Your task to perform on an android device: toggle priority inbox in the gmail app Image 0: 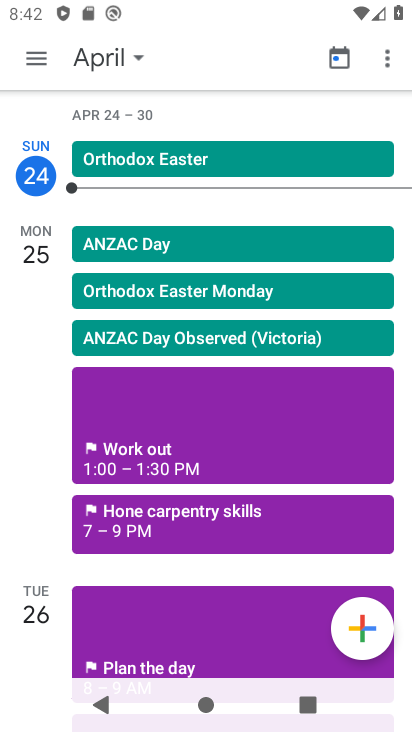
Step 0: drag from (274, 414) to (285, 264)
Your task to perform on an android device: toggle priority inbox in the gmail app Image 1: 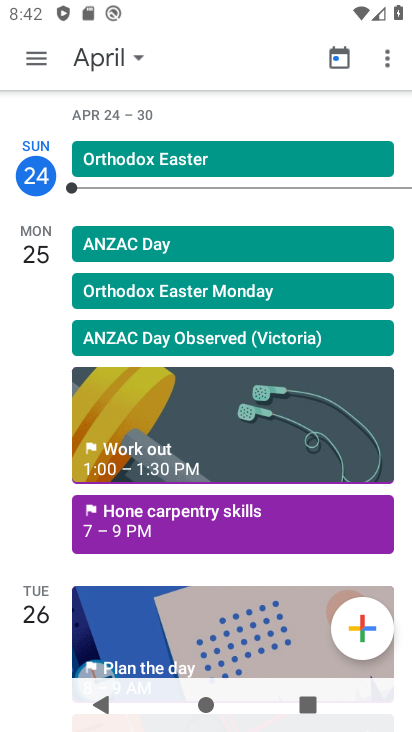
Step 1: press home button
Your task to perform on an android device: toggle priority inbox in the gmail app Image 2: 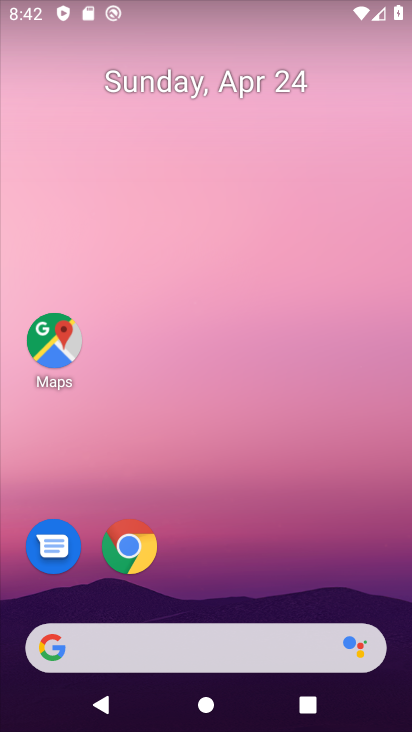
Step 2: drag from (256, 567) to (270, 244)
Your task to perform on an android device: toggle priority inbox in the gmail app Image 3: 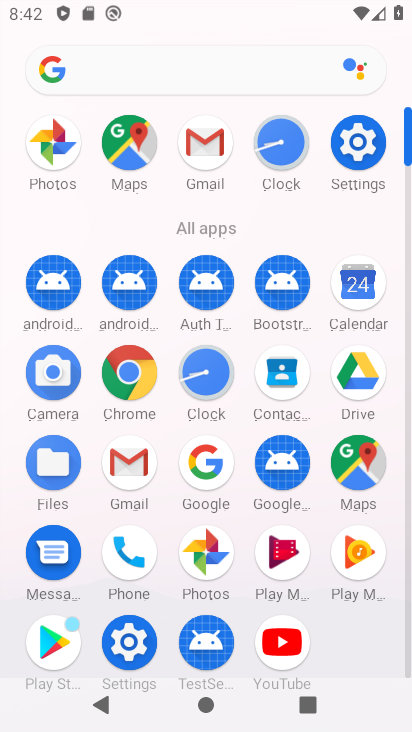
Step 3: click (126, 466)
Your task to perform on an android device: toggle priority inbox in the gmail app Image 4: 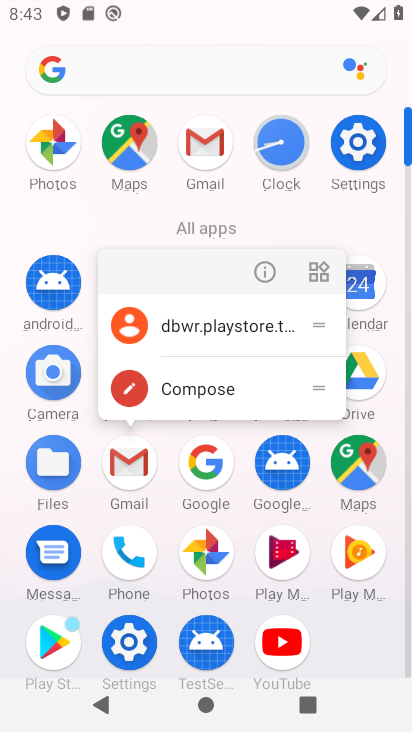
Step 4: click (125, 466)
Your task to perform on an android device: toggle priority inbox in the gmail app Image 5: 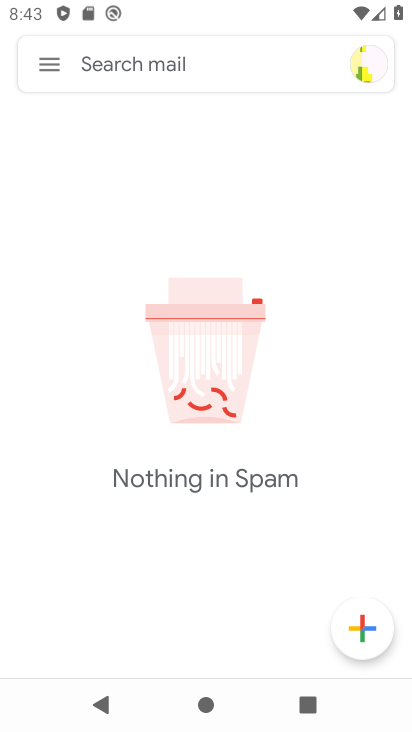
Step 5: click (41, 56)
Your task to perform on an android device: toggle priority inbox in the gmail app Image 6: 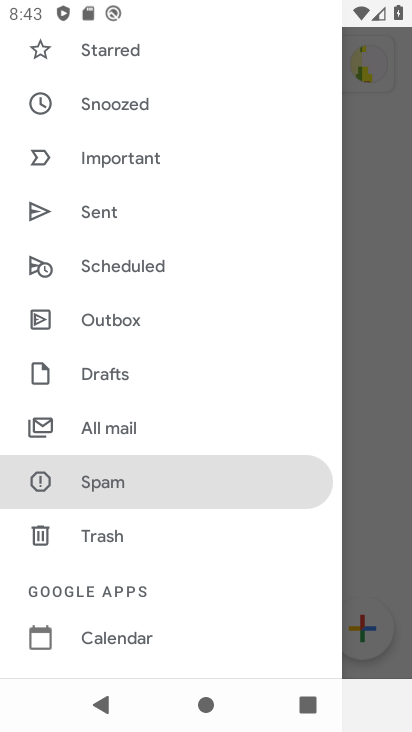
Step 6: drag from (200, 549) to (236, 113)
Your task to perform on an android device: toggle priority inbox in the gmail app Image 7: 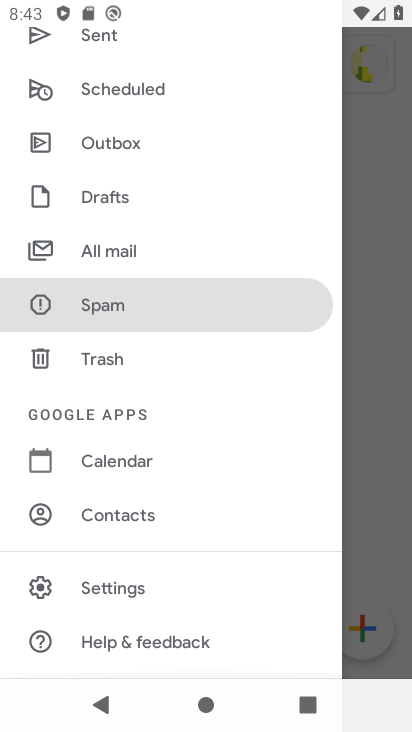
Step 7: click (141, 584)
Your task to perform on an android device: toggle priority inbox in the gmail app Image 8: 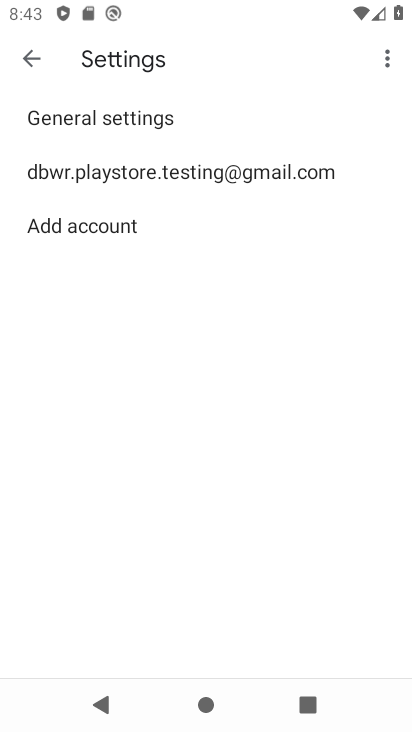
Step 8: click (205, 165)
Your task to perform on an android device: toggle priority inbox in the gmail app Image 9: 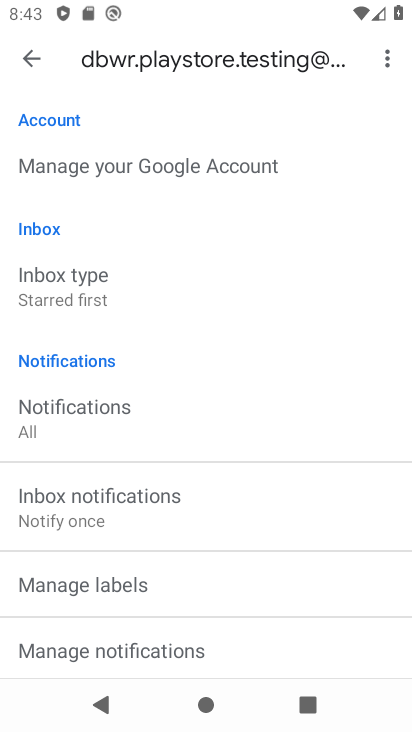
Step 9: click (129, 292)
Your task to perform on an android device: toggle priority inbox in the gmail app Image 10: 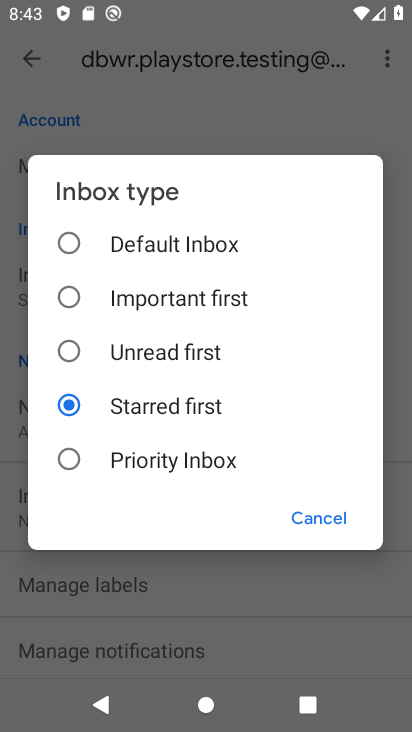
Step 10: click (153, 453)
Your task to perform on an android device: toggle priority inbox in the gmail app Image 11: 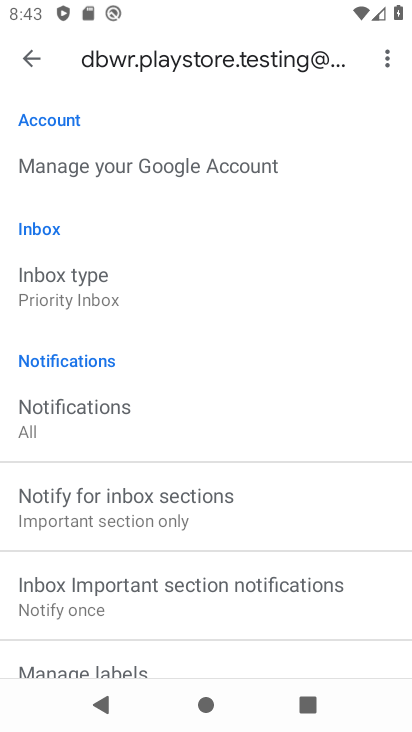
Step 11: task complete